Your task to perform on an android device: turn off priority inbox in the gmail app Image 0: 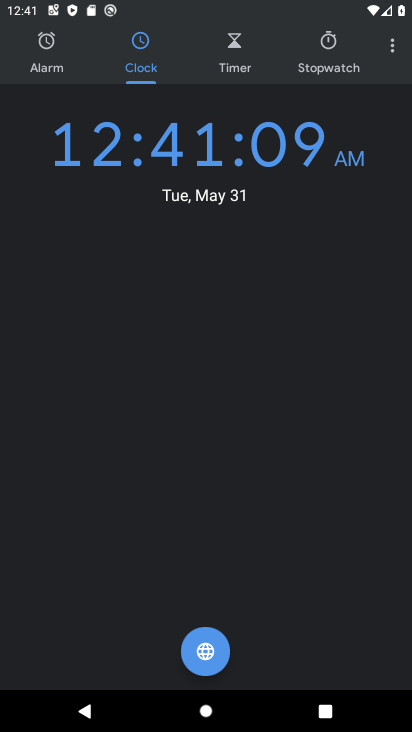
Step 0: press home button
Your task to perform on an android device: turn off priority inbox in the gmail app Image 1: 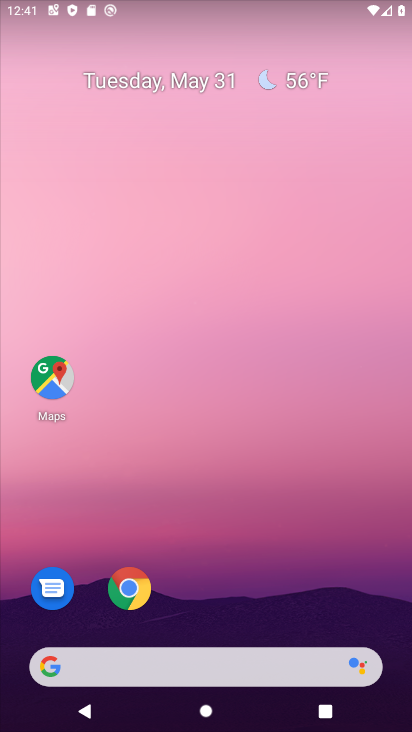
Step 1: drag from (219, 630) to (200, 202)
Your task to perform on an android device: turn off priority inbox in the gmail app Image 2: 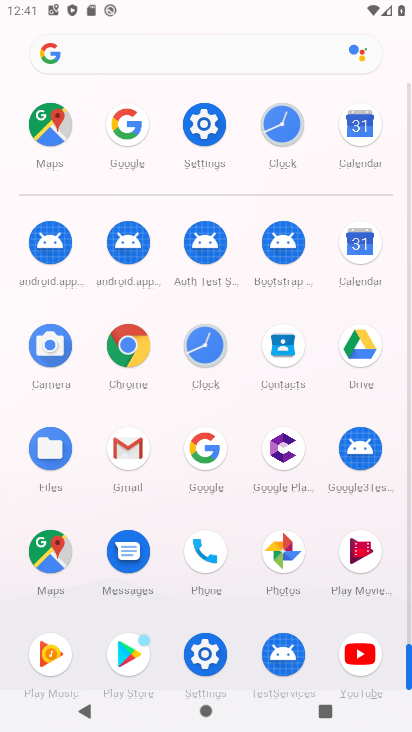
Step 2: click (131, 455)
Your task to perform on an android device: turn off priority inbox in the gmail app Image 3: 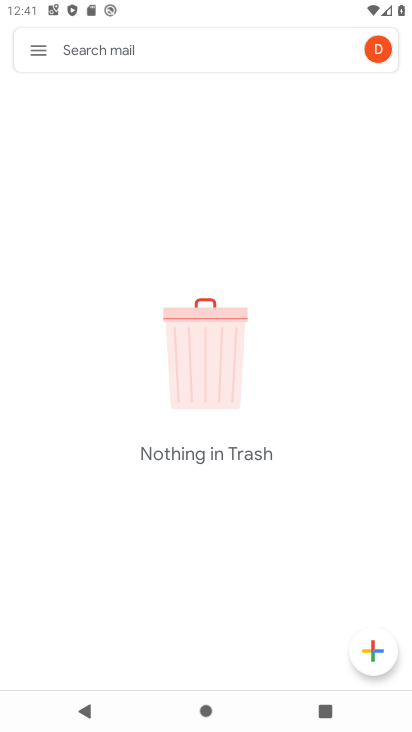
Step 3: click (36, 54)
Your task to perform on an android device: turn off priority inbox in the gmail app Image 4: 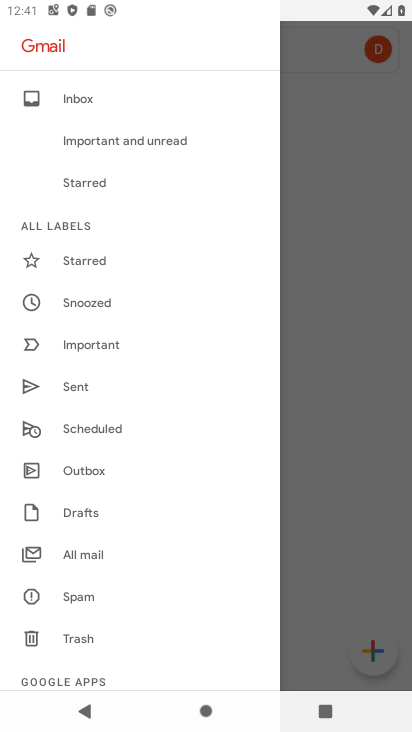
Step 4: drag from (110, 629) to (116, 329)
Your task to perform on an android device: turn off priority inbox in the gmail app Image 5: 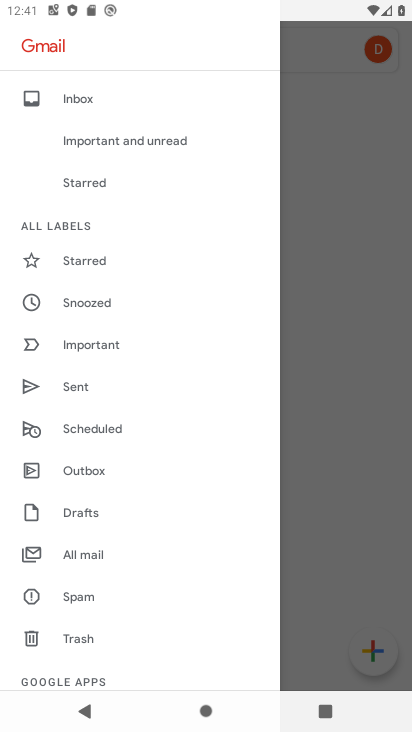
Step 5: drag from (78, 622) to (120, 242)
Your task to perform on an android device: turn off priority inbox in the gmail app Image 6: 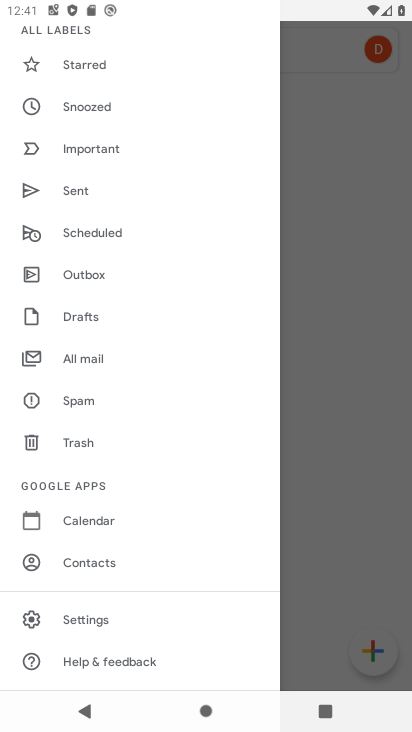
Step 6: click (76, 620)
Your task to perform on an android device: turn off priority inbox in the gmail app Image 7: 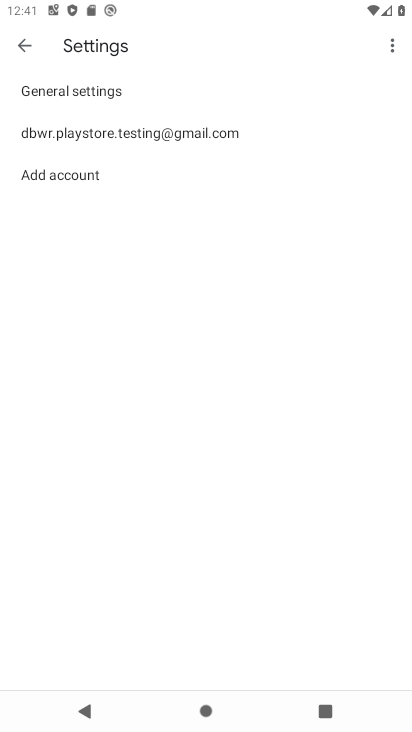
Step 7: click (81, 135)
Your task to perform on an android device: turn off priority inbox in the gmail app Image 8: 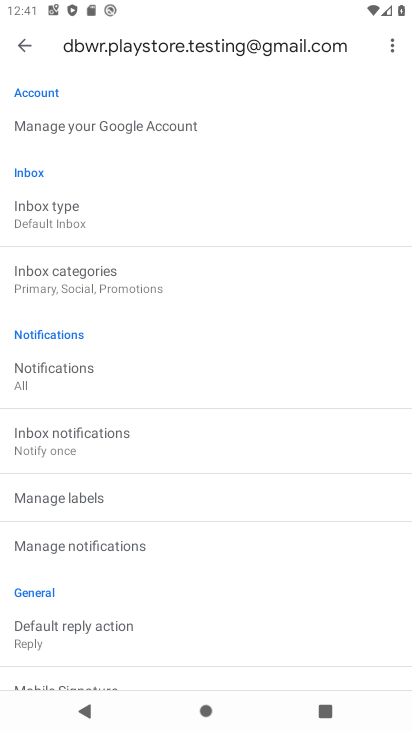
Step 8: click (55, 201)
Your task to perform on an android device: turn off priority inbox in the gmail app Image 9: 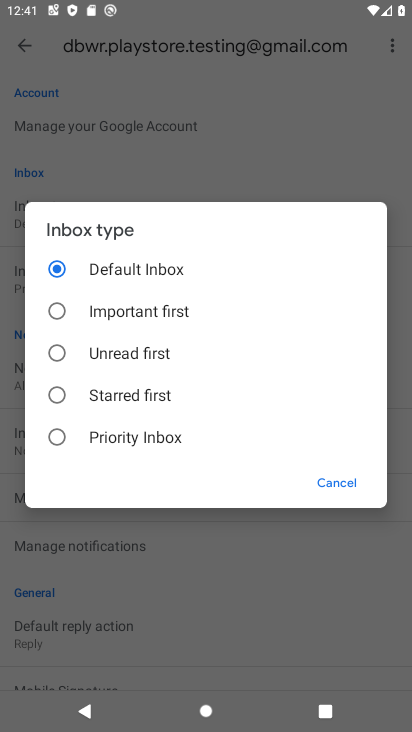
Step 9: task complete